Your task to perform on an android device: turn off location Image 0: 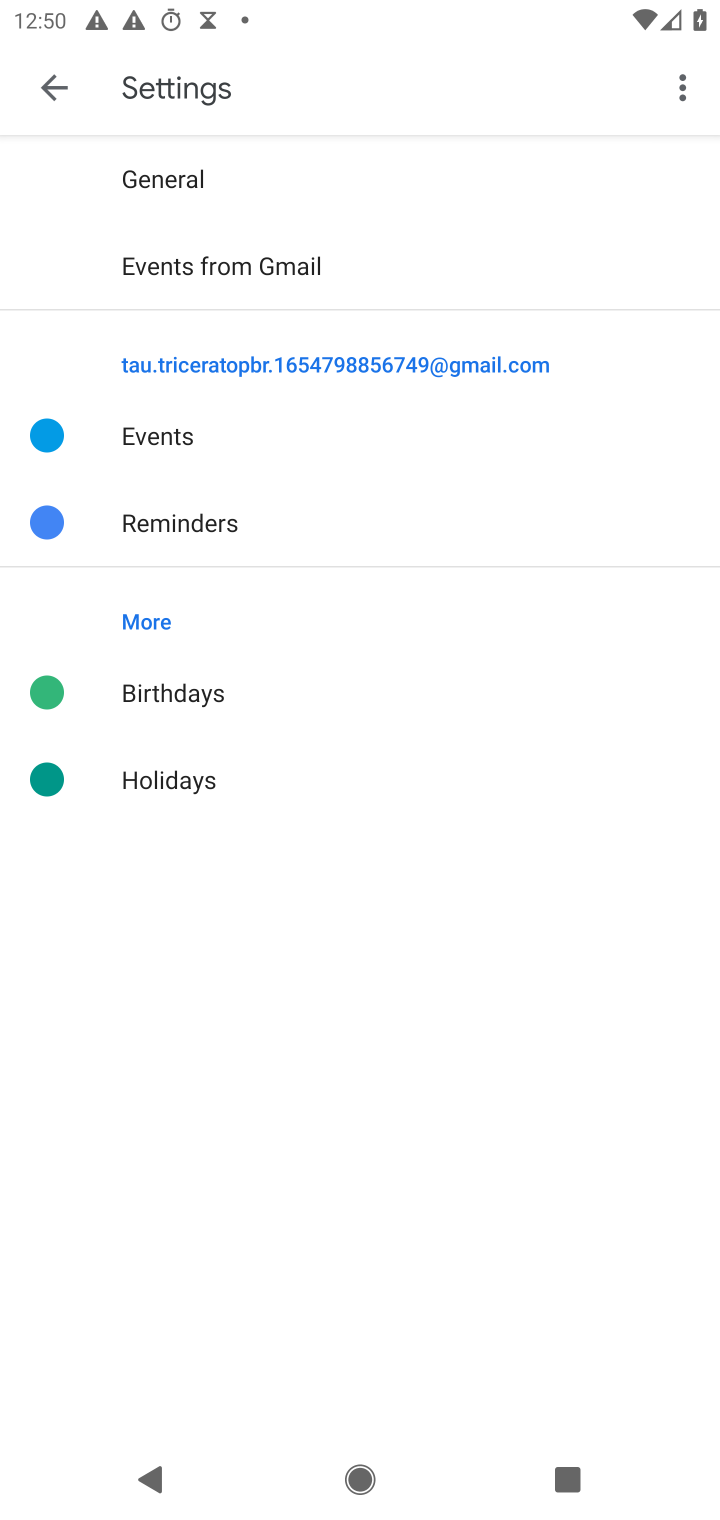
Step 0: press home button
Your task to perform on an android device: turn off location Image 1: 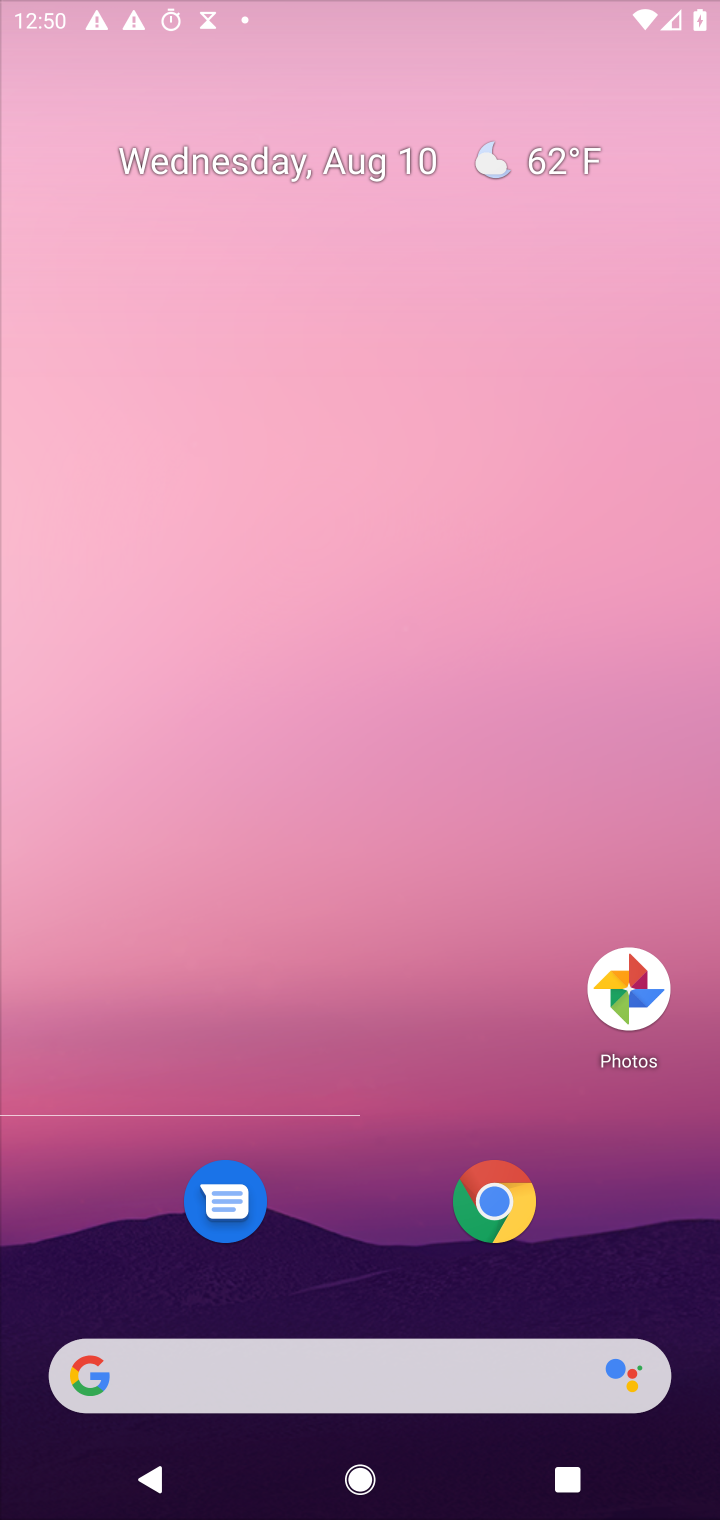
Step 1: drag from (367, 1162) to (408, 130)
Your task to perform on an android device: turn off location Image 2: 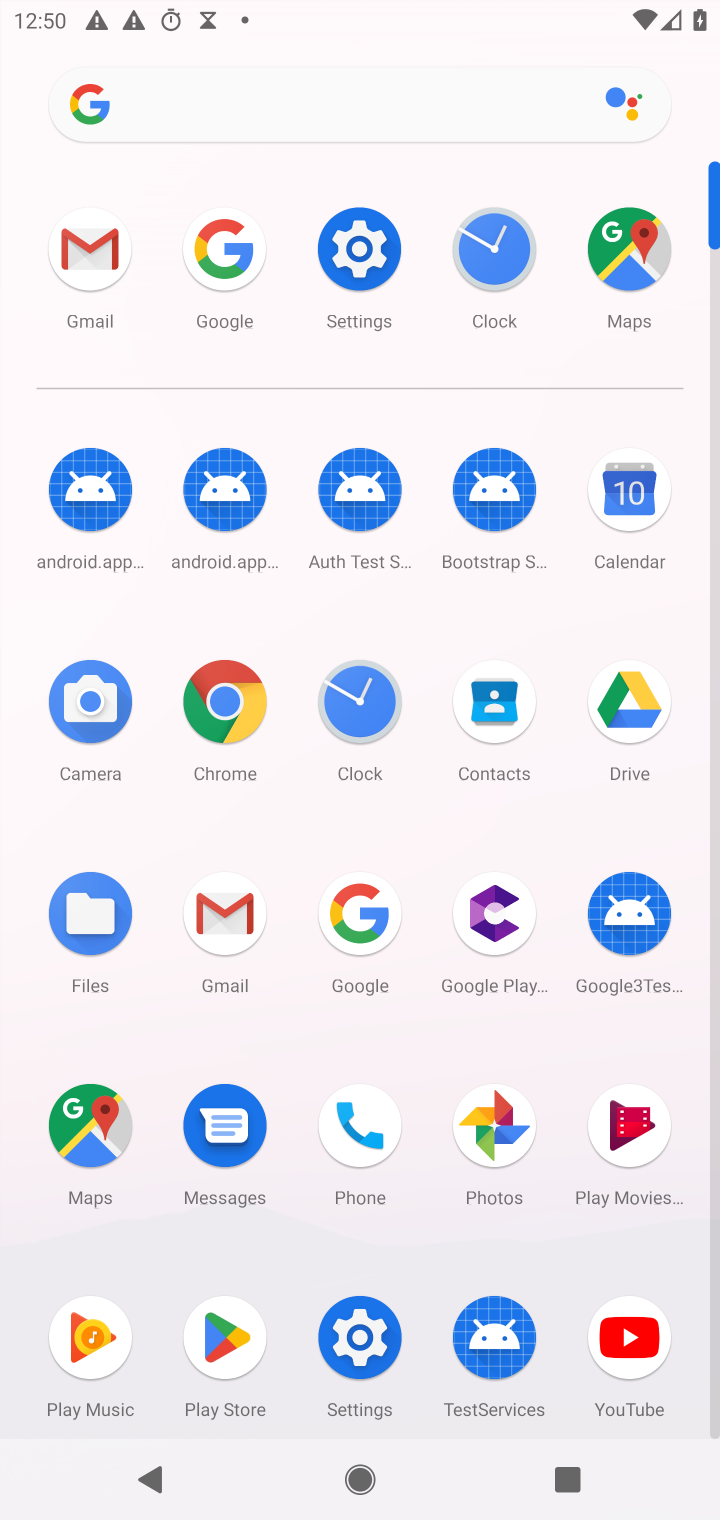
Step 2: click (369, 243)
Your task to perform on an android device: turn off location Image 3: 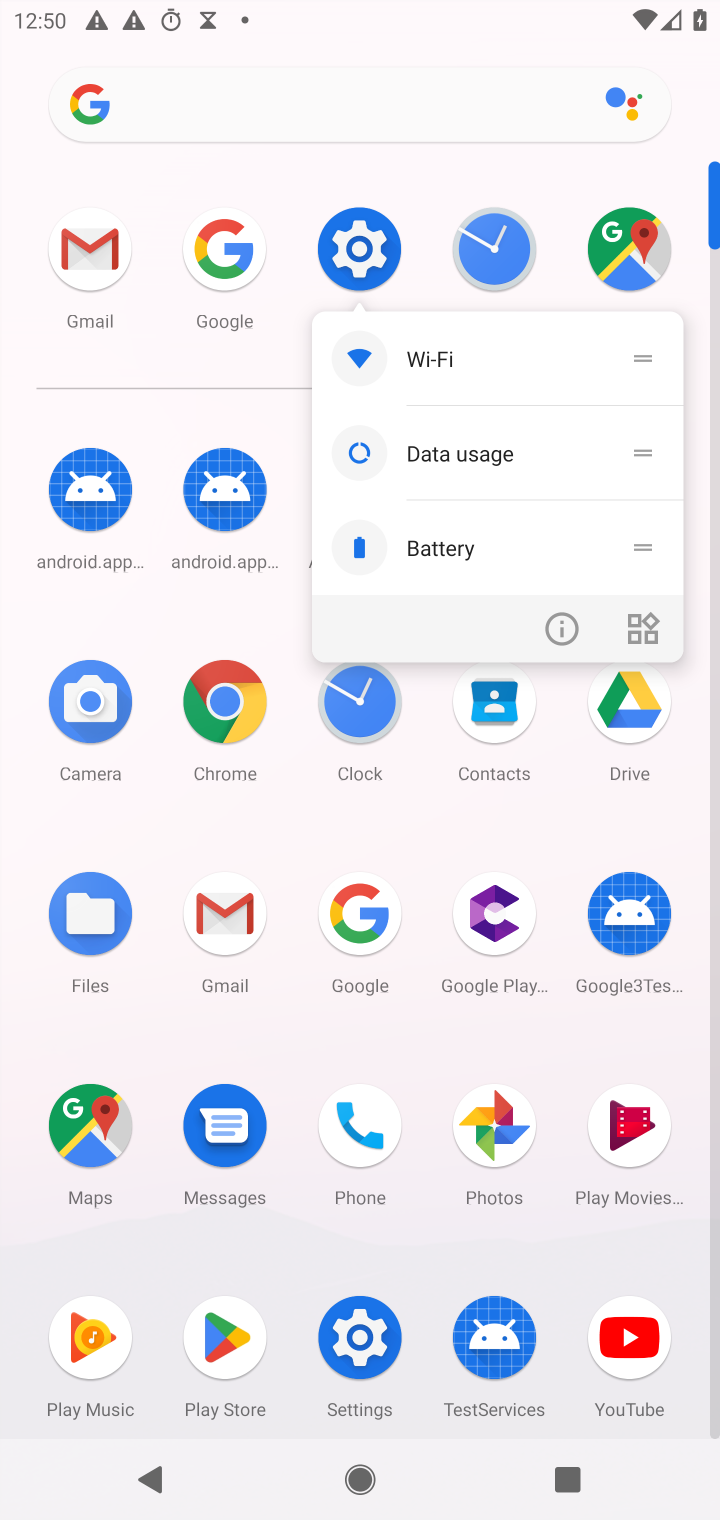
Step 3: click (336, 215)
Your task to perform on an android device: turn off location Image 4: 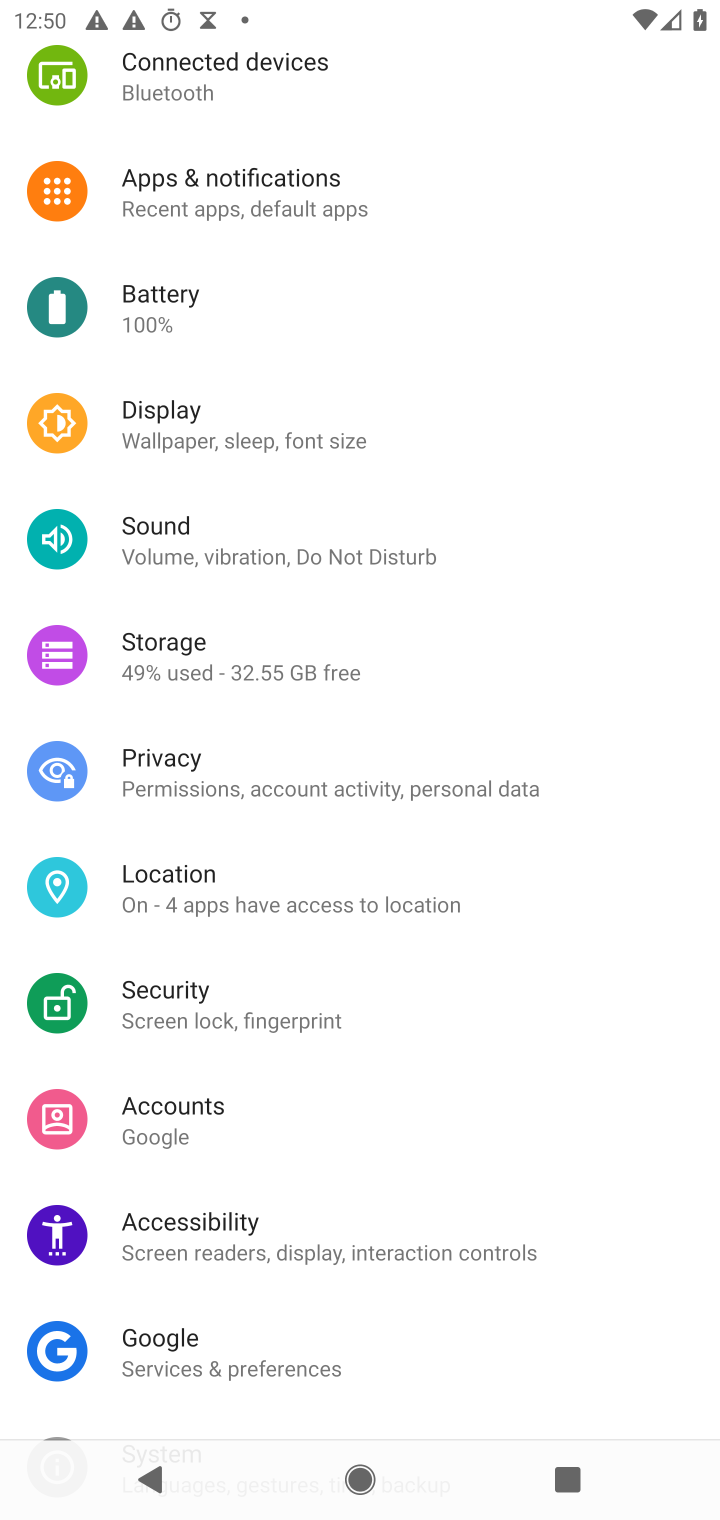
Step 4: click (195, 884)
Your task to perform on an android device: turn off location Image 5: 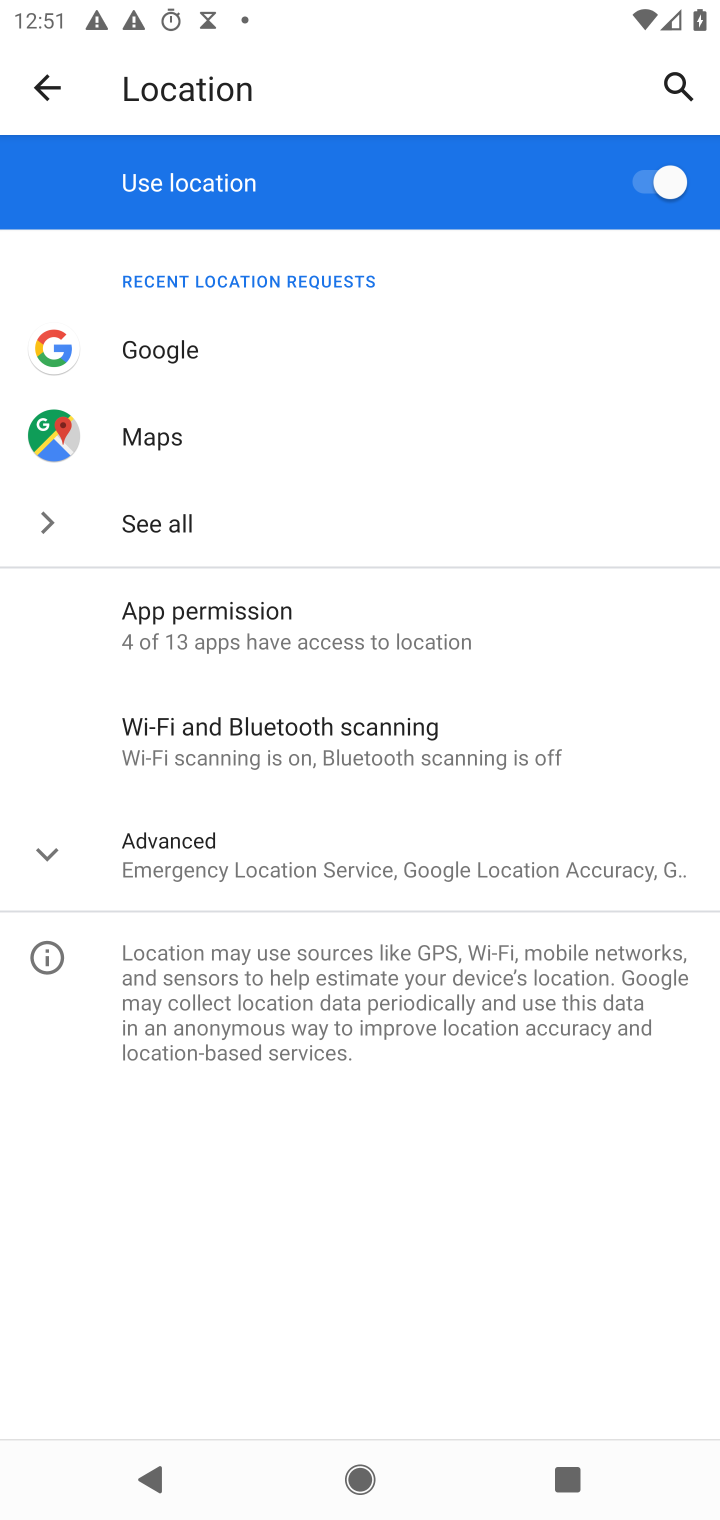
Step 5: click (669, 176)
Your task to perform on an android device: turn off location Image 6: 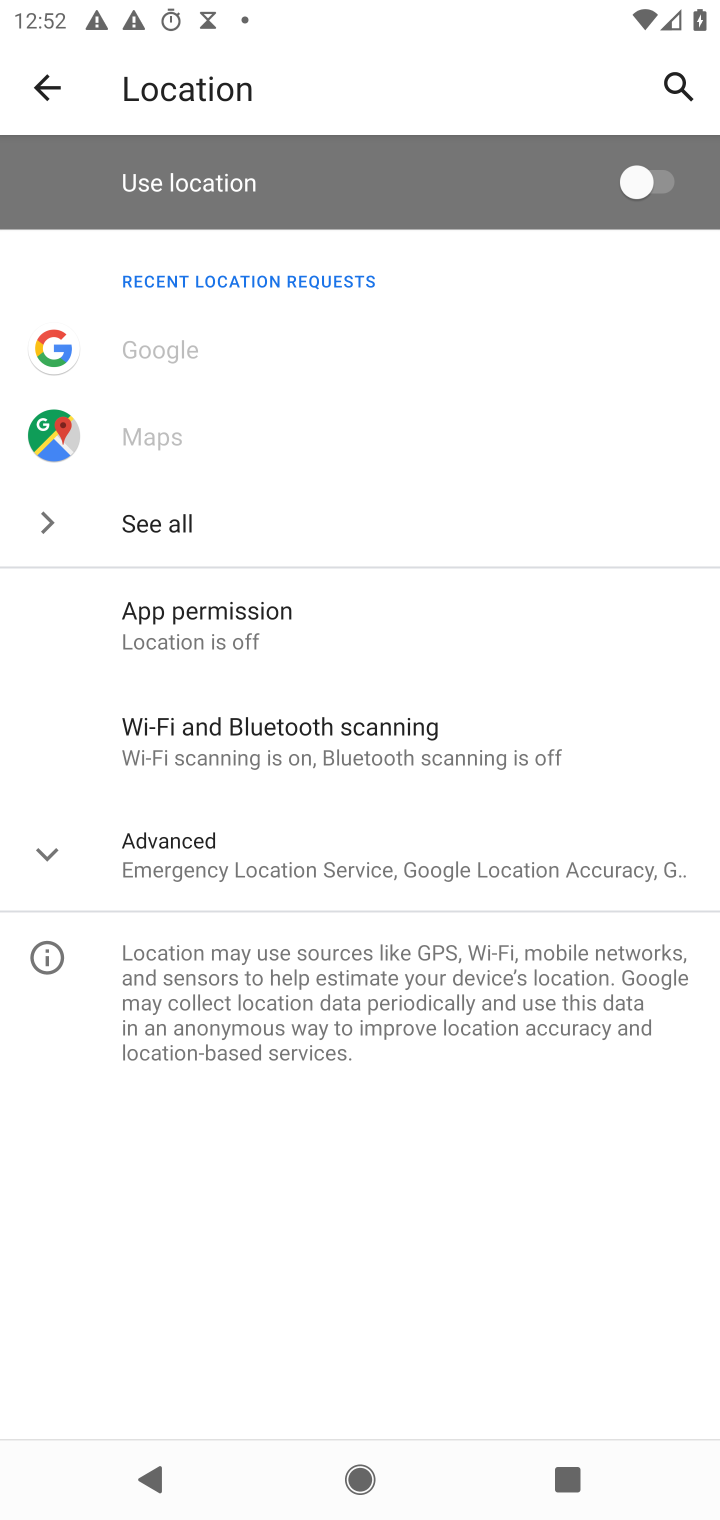
Step 6: task complete